Your task to perform on an android device: Go to accessibility settings Image 0: 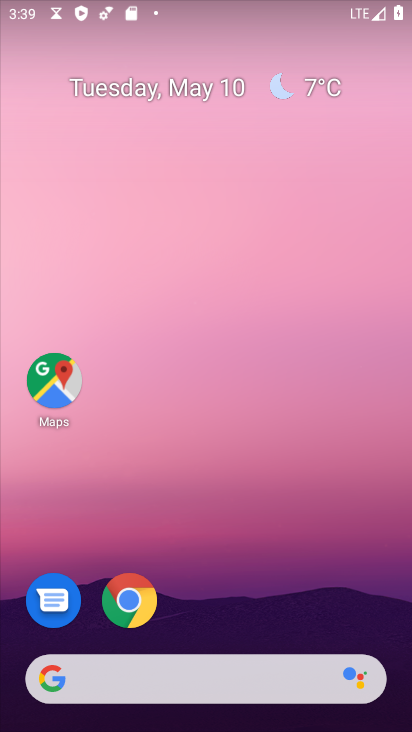
Step 0: drag from (263, 573) to (298, 285)
Your task to perform on an android device: Go to accessibility settings Image 1: 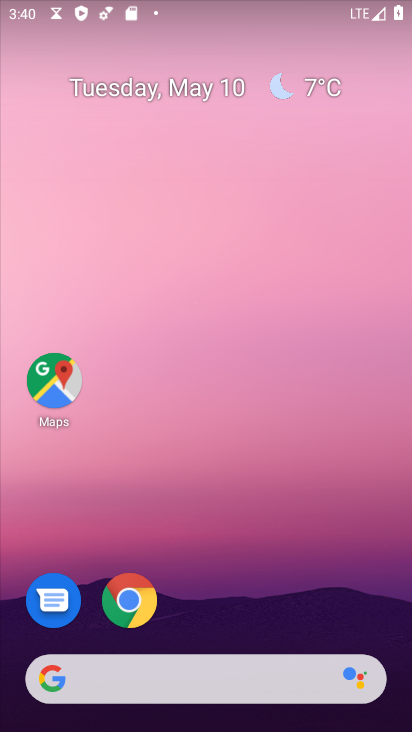
Step 1: drag from (246, 604) to (408, 156)
Your task to perform on an android device: Go to accessibility settings Image 2: 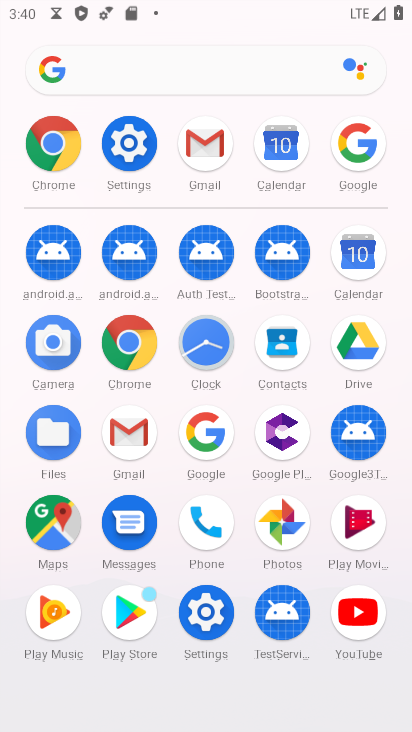
Step 2: click (122, 155)
Your task to perform on an android device: Go to accessibility settings Image 3: 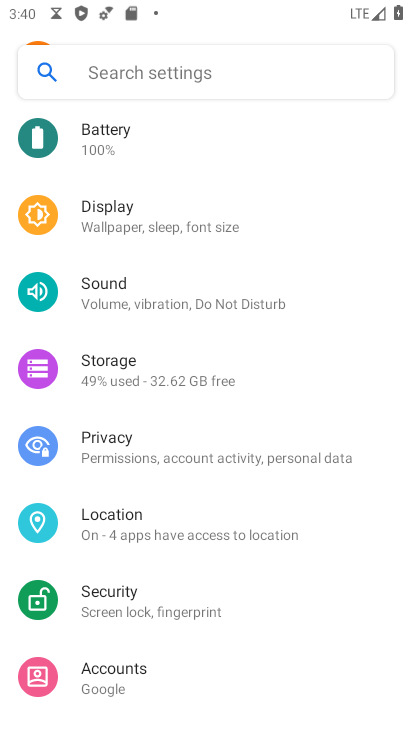
Step 3: drag from (131, 197) to (157, 480)
Your task to perform on an android device: Go to accessibility settings Image 4: 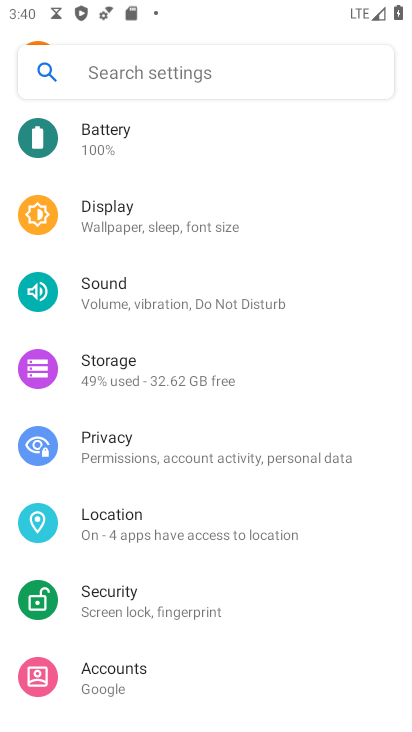
Step 4: drag from (257, 165) to (235, 554)
Your task to perform on an android device: Go to accessibility settings Image 5: 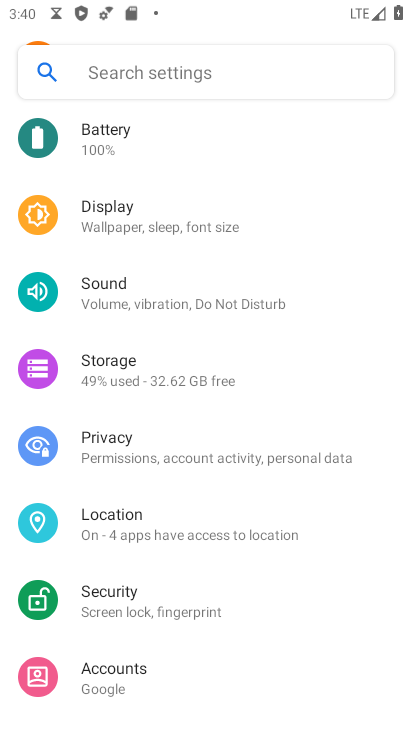
Step 5: drag from (268, 268) to (199, 697)
Your task to perform on an android device: Go to accessibility settings Image 6: 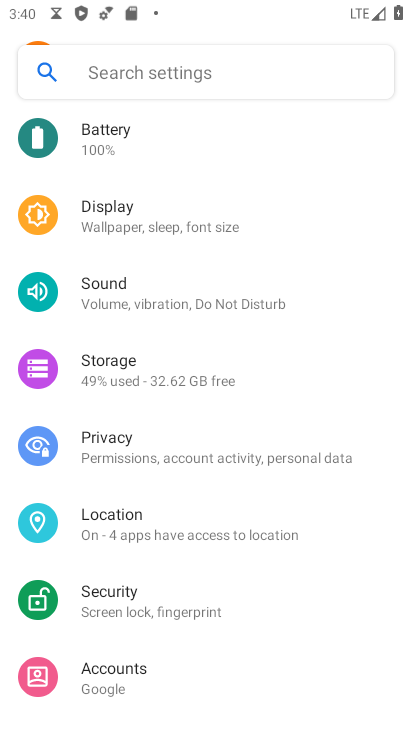
Step 6: drag from (318, 172) to (260, 586)
Your task to perform on an android device: Go to accessibility settings Image 7: 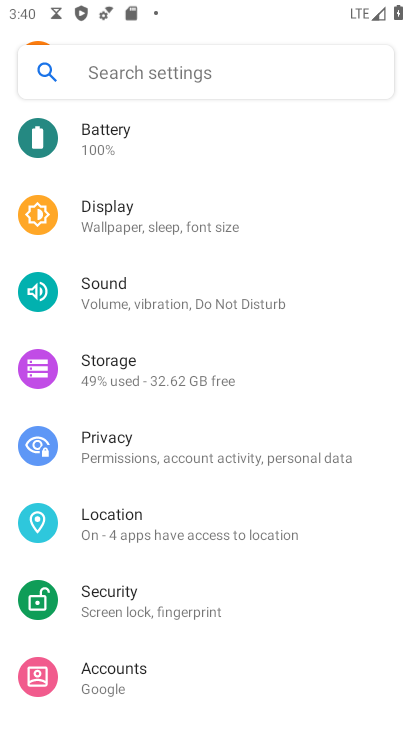
Step 7: click (313, 62)
Your task to perform on an android device: Go to accessibility settings Image 8: 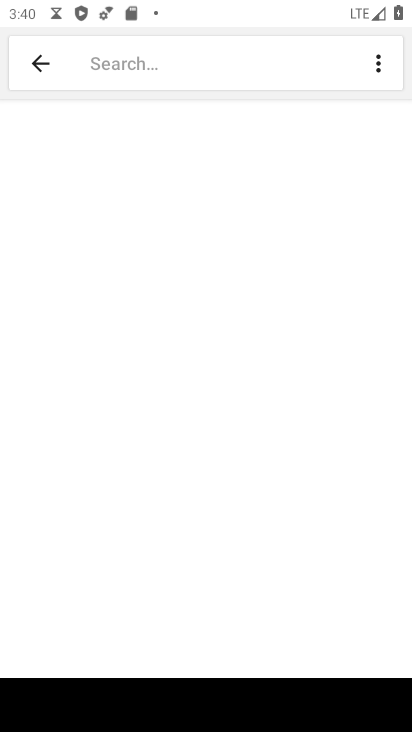
Step 8: type ""
Your task to perform on an android device: Go to accessibility settings Image 9: 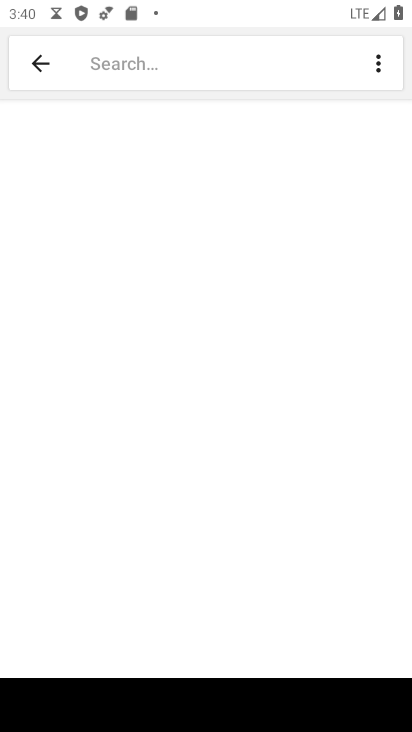
Step 9: type "accessibility"
Your task to perform on an android device: Go to accessibility settings Image 10: 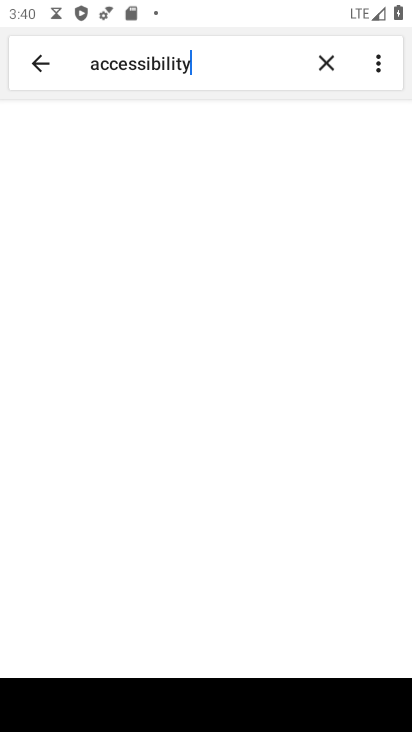
Step 10: type ""
Your task to perform on an android device: Go to accessibility settings Image 11: 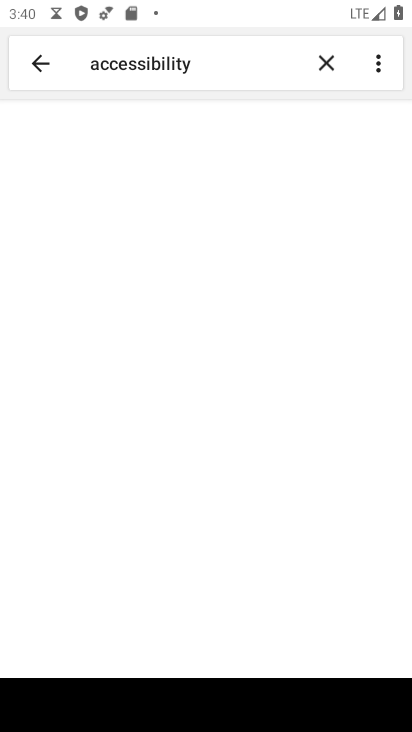
Step 11: click (240, 62)
Your task to perform on an android device: Go to accessibility settings Image 12: 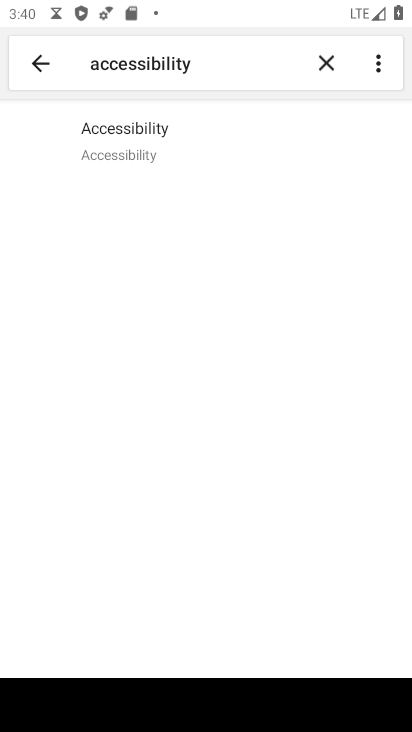
Step 12: click (248, 137)
Your task to perform on an android device: Go to accessibility settings Image 13: 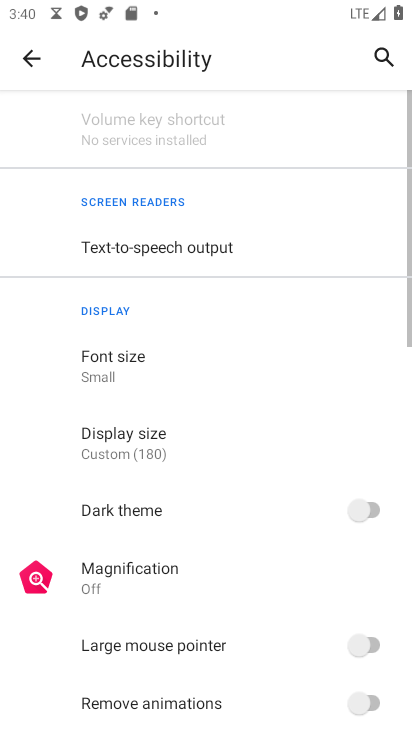
Step 13: task complete